Your task to perform on an android device: open app "Spotify: Music and Podcasts" (install if not already installed) Image 0: 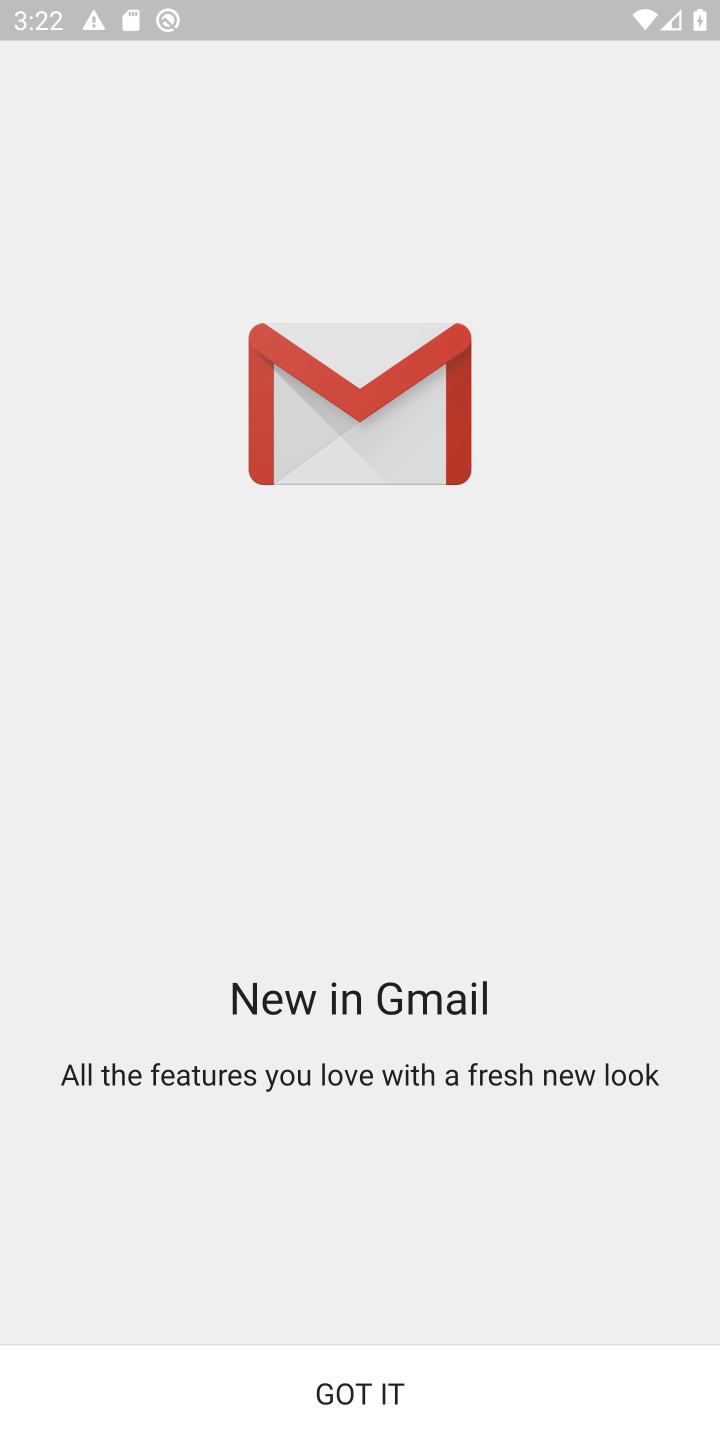
Step 0: press home button
Your task to perform on an android device: open app "Spotify: Music and Podcasts" (install if not already installed) Image 1: 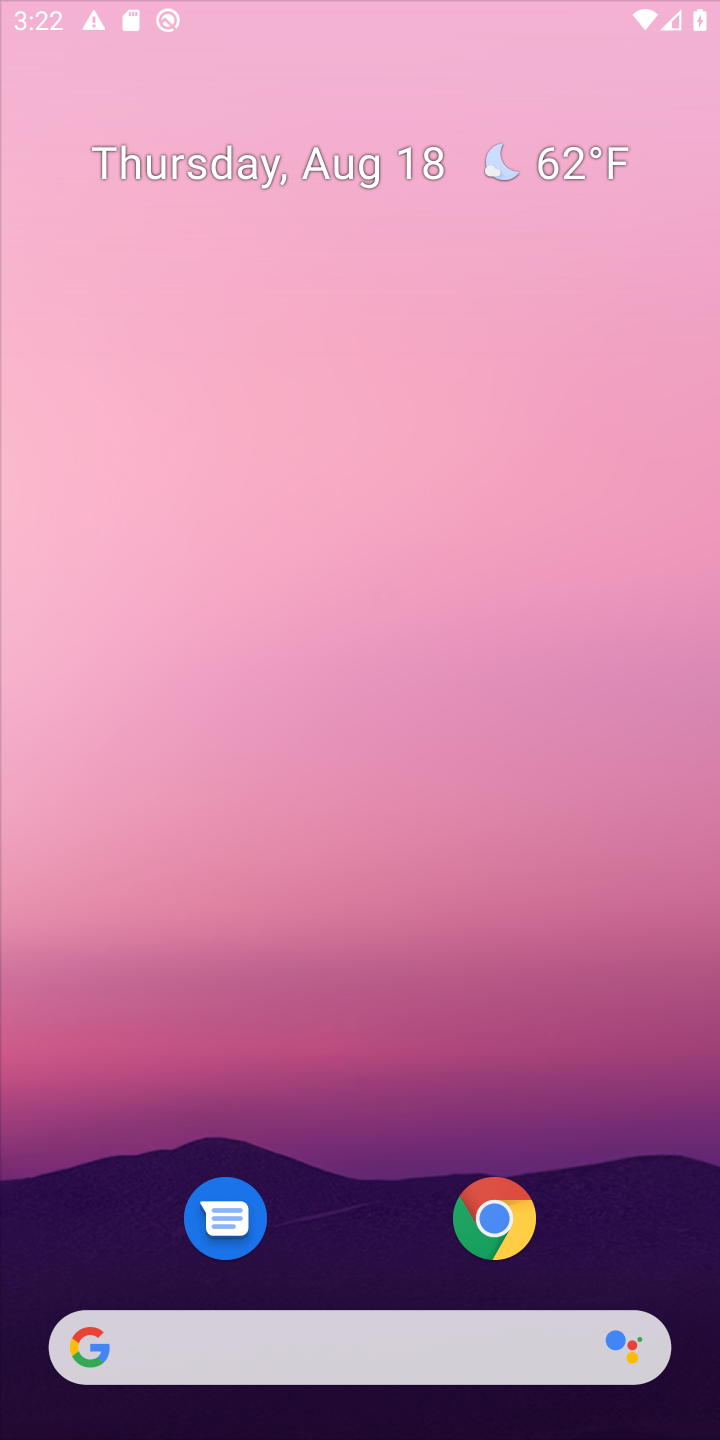
Step 1: drag from (370, 1091) to (403, 191)
Your task to perform on an android device: open app "Spotify: Music and Podcasts" (install if not already installed) Image 2: 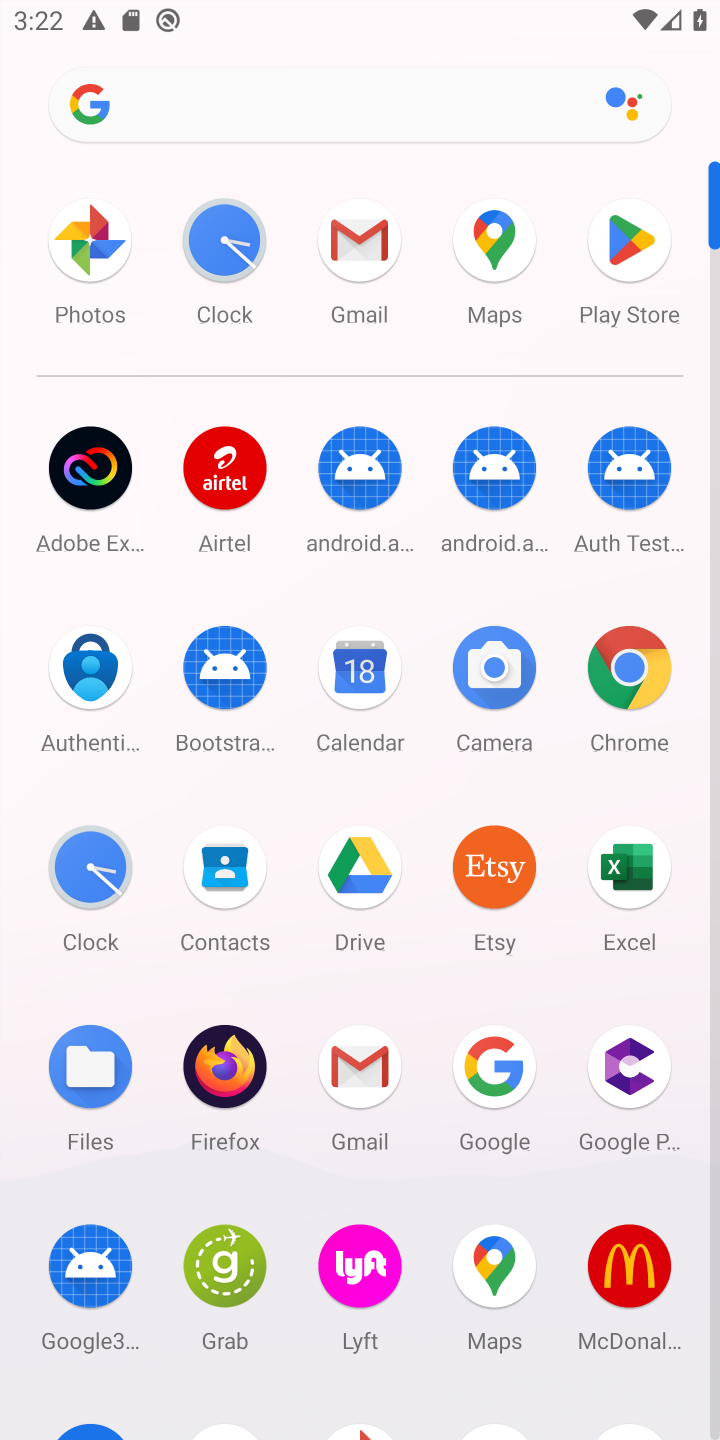
Step 2: click (622, 272)
Your task to perform on an android device: open app "Spotify: Music and Podcasts" (install if not already installed) Image 3: 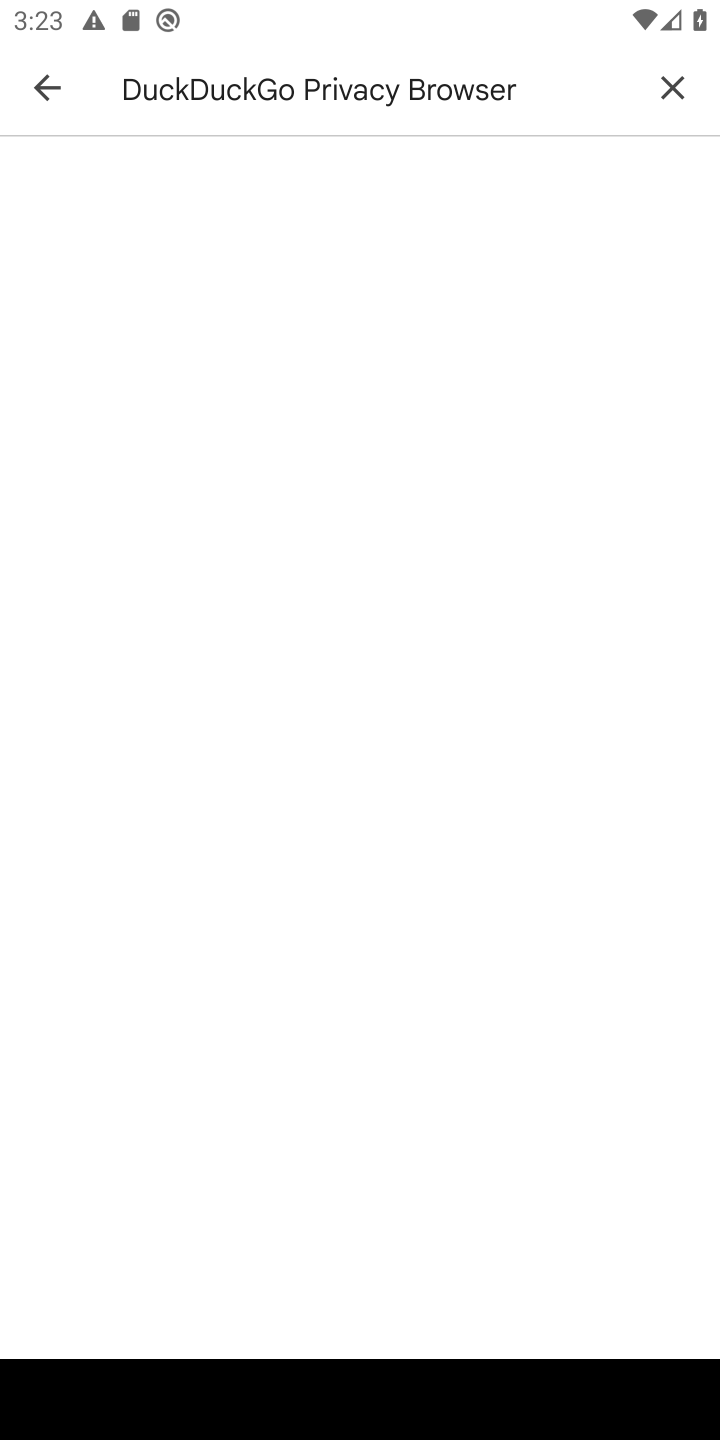
Step 3: click (667, 84)
Your task to perform on an android device: open app "Spotify: Music and Podcasts" (install if not already installed) Image 4: 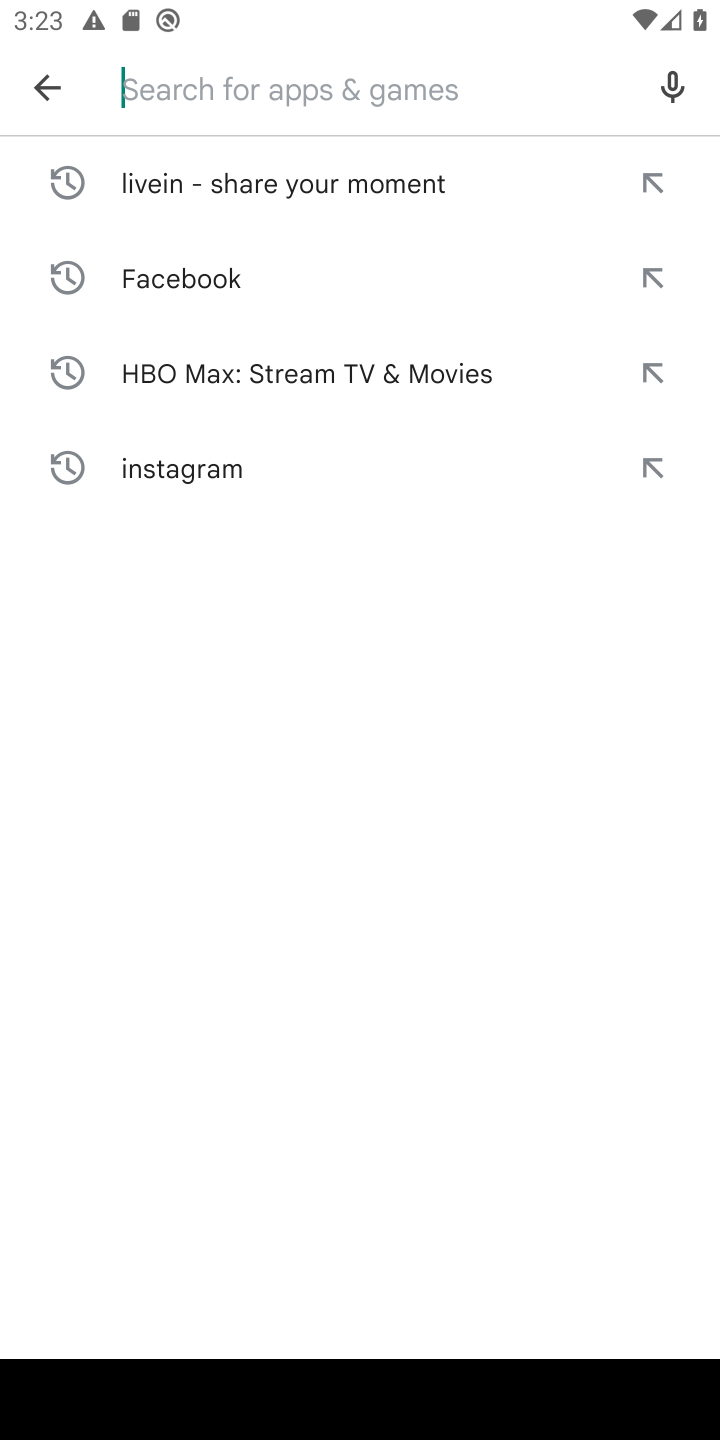
Step 4: type "Spotify: Music and Podcasts"
Your task to perform on an android device: open app "Spotify: Music and Podcasts" (install if not already installed) Image 5: 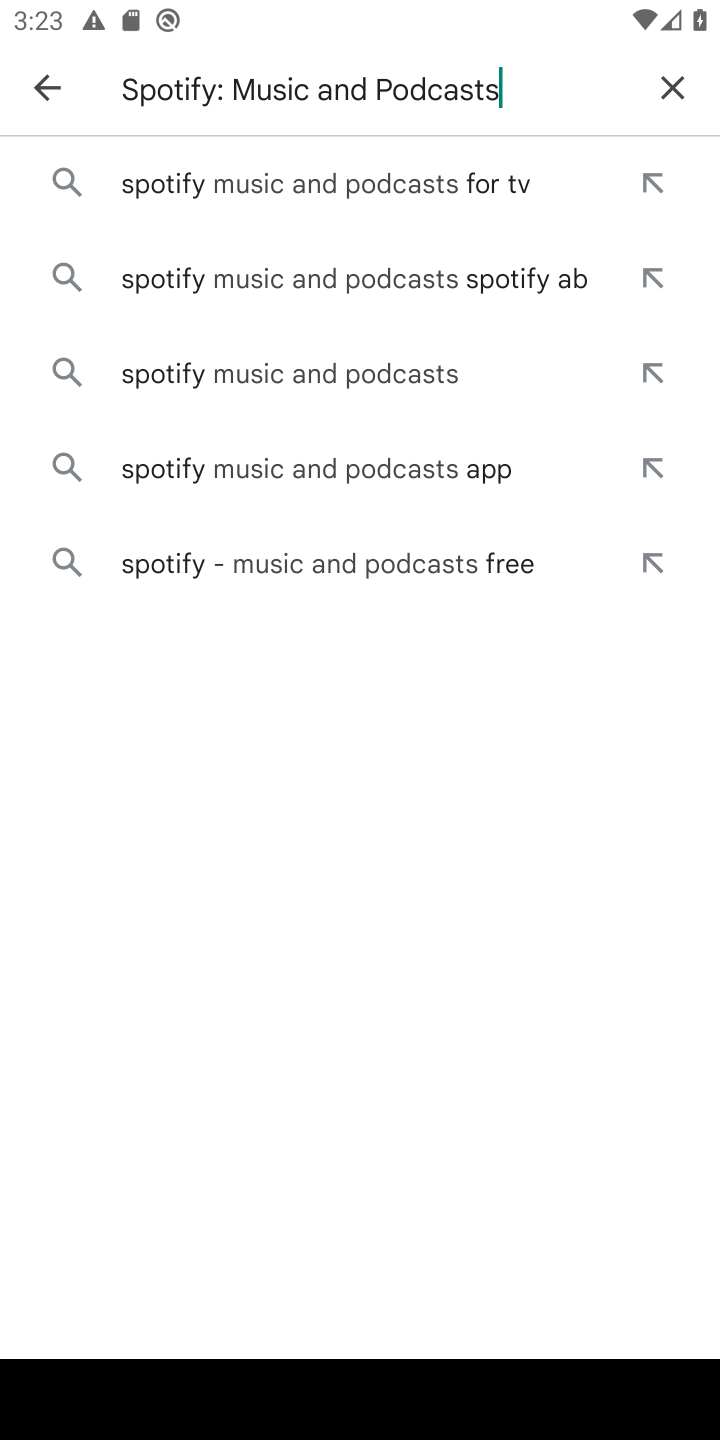
Step 5: type ""
Your task to perform on an android device: open app "Spotify: Music and Podcasts" (install if not already installed) Image 6: 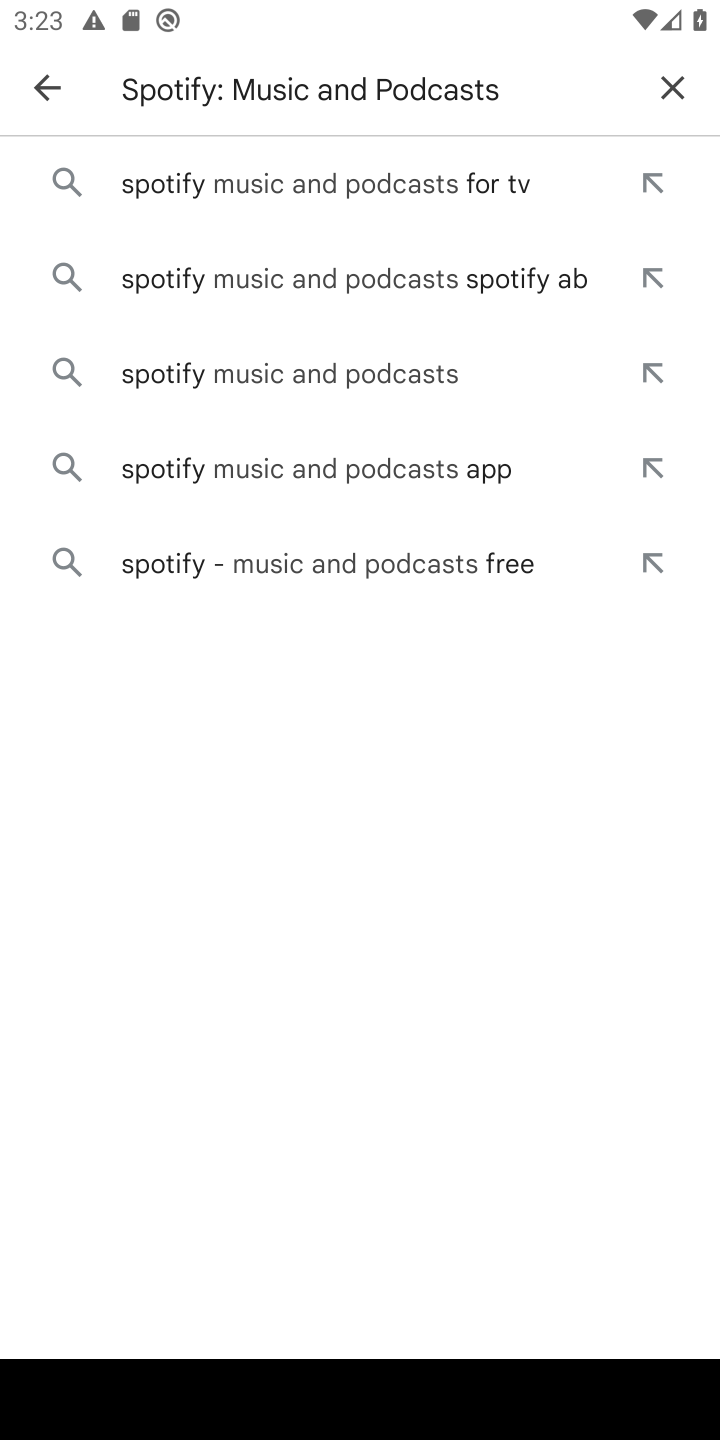
Step 6: click (273, 186)
Your task to perform on an android device: open app "Spotify: Music and Podcasts" (install if not already installed) Image 7: 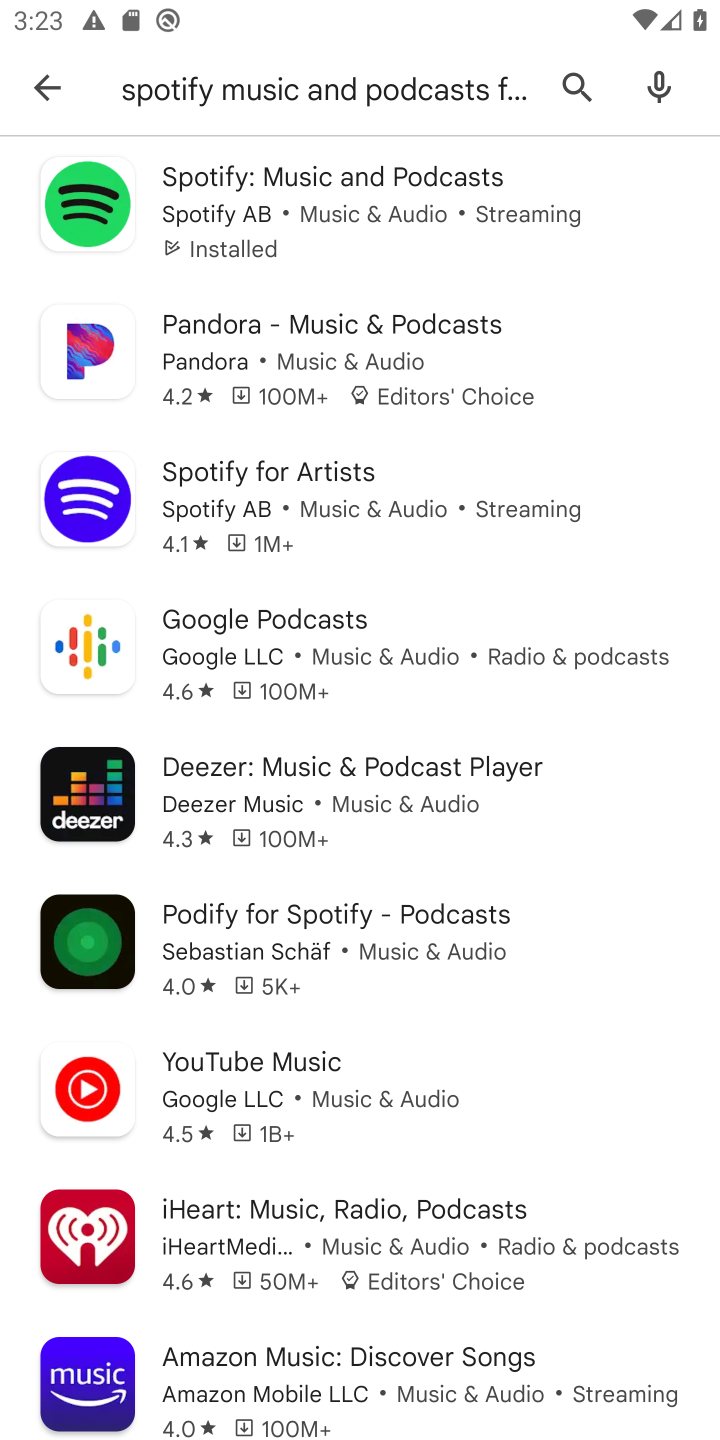
Step 7: click (376, 203)
Your task to perform on an android device: open app "Spotify: Music and Podcasts" (install if not already installed) Image 8: 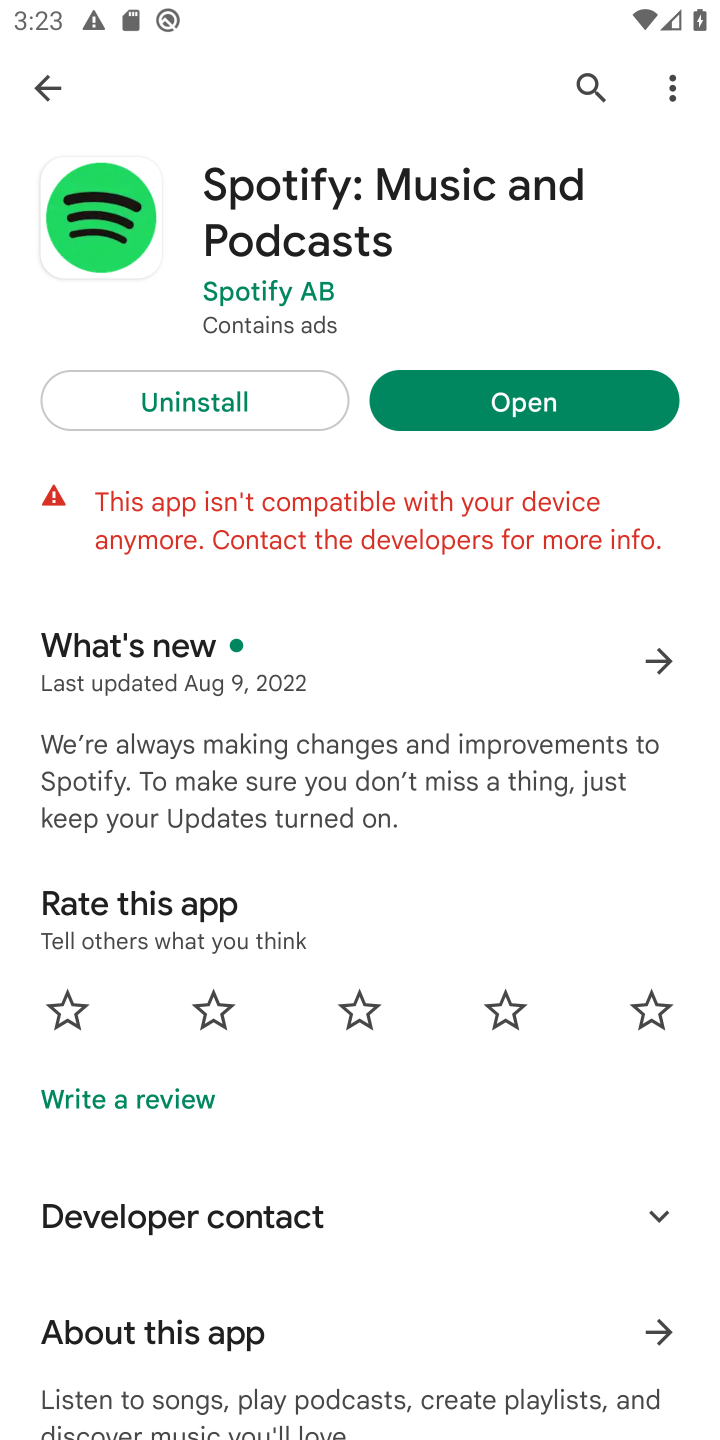
Step 8: click (507, 394)
Your task to perform on an android device: open app "Spotify: Music and Podcasts" (install if not already installed) Image 9: 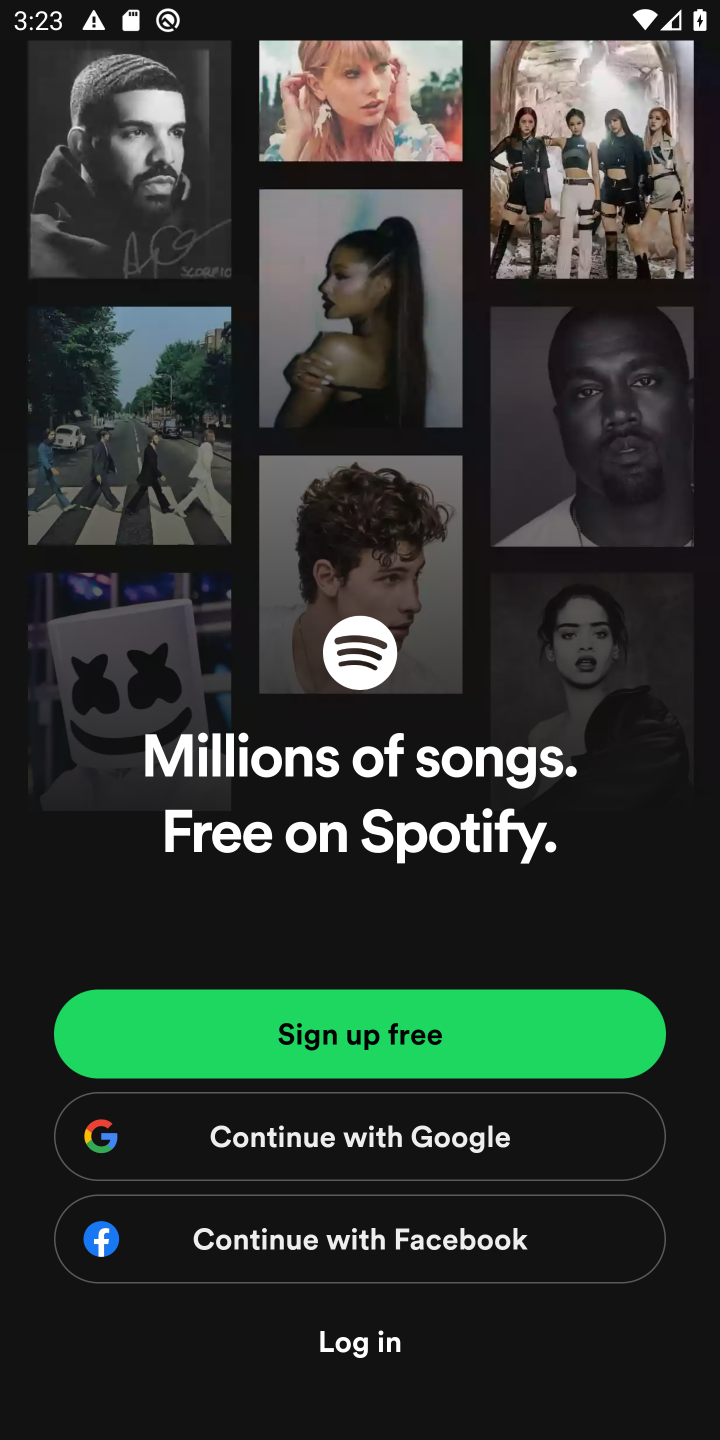
Step 9: task complete